Your task to perform on an android device: Clear all items from cart on target. Search for "razer blade" on target, select the first entry, add it to the cart, then select checkout. Image 0: 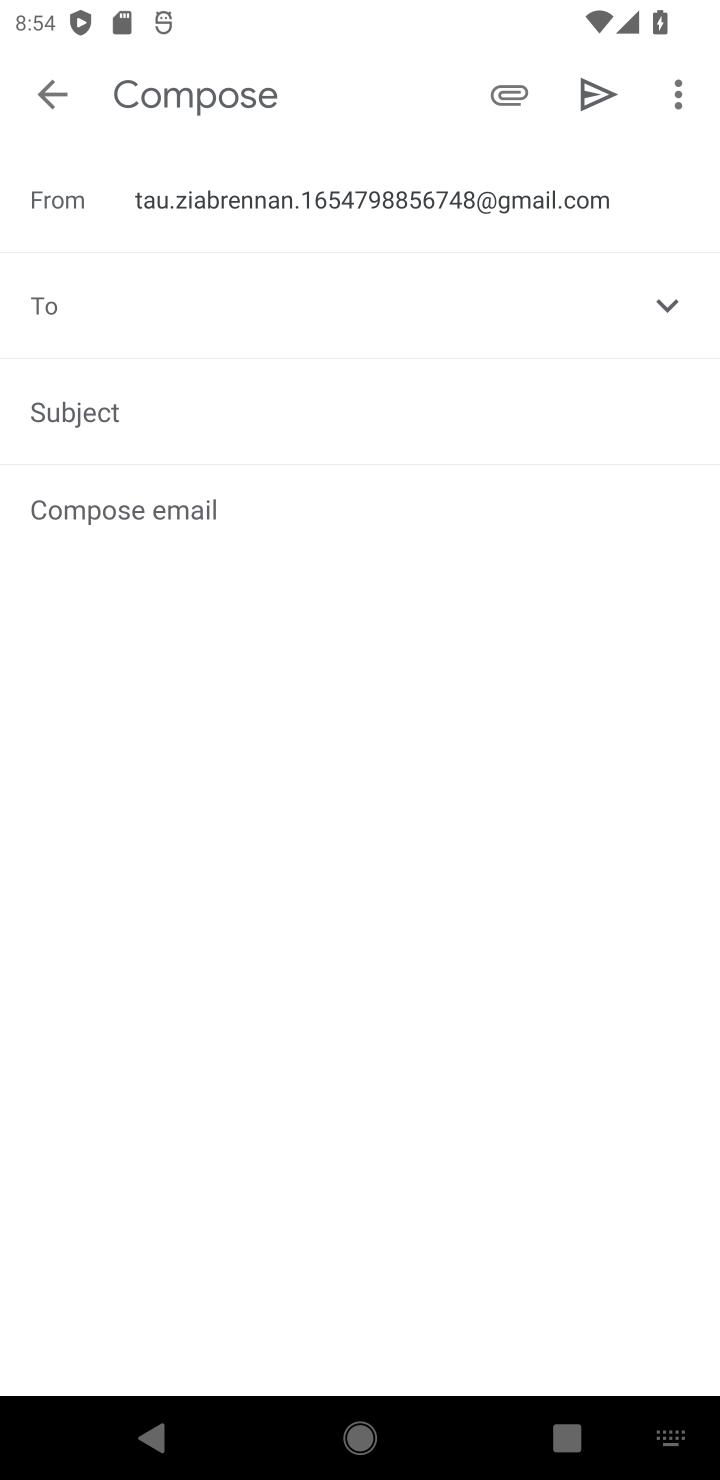
Step 0: press home button
Your task to perform on an android device: Clear all items from cart on target. Search for "razer blade" on target, select the first entry, add it to the cart, then select checkout. Image 1: 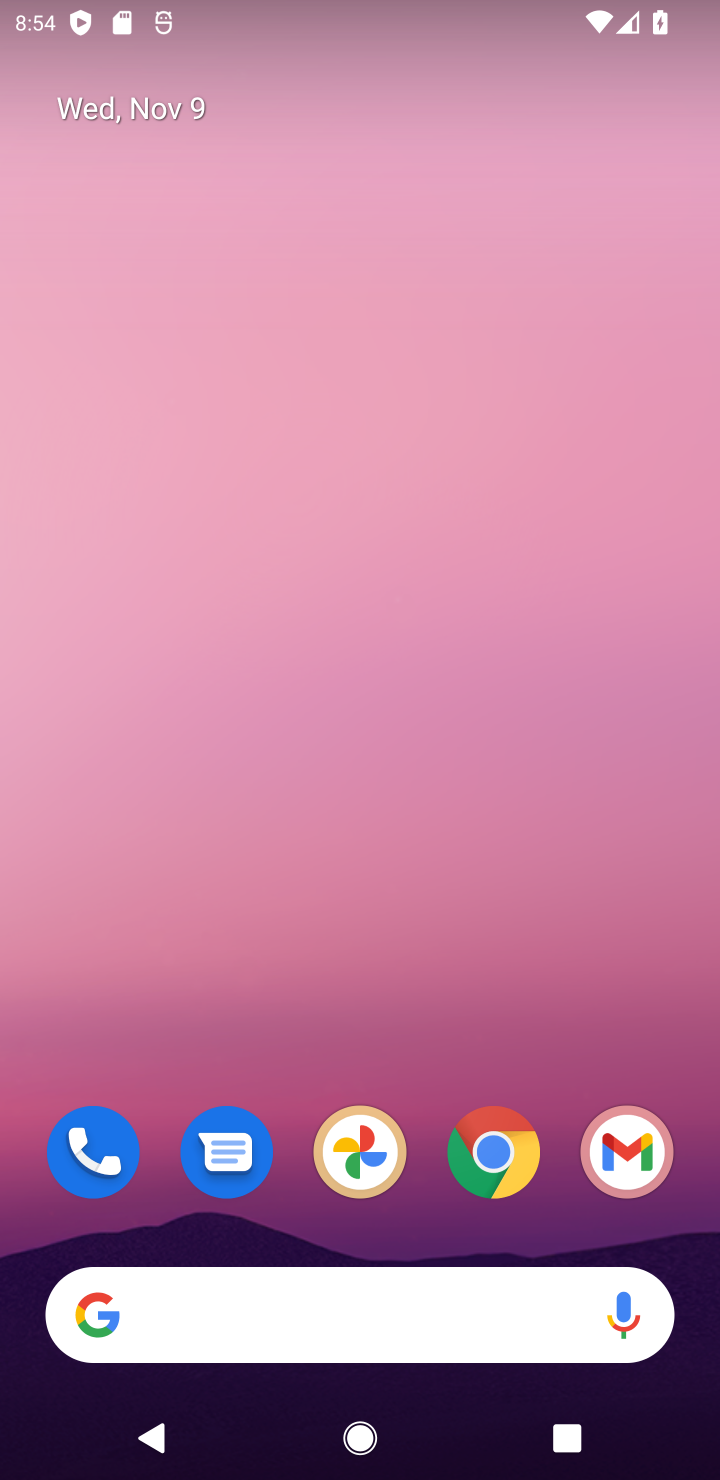
Step 1: click (496, 1161)
Your task to perform on an android device: Clear all items from cart on target. Search for "razer blade" on target, select the first entry, add it to the cart, then select checkout. Image 2: 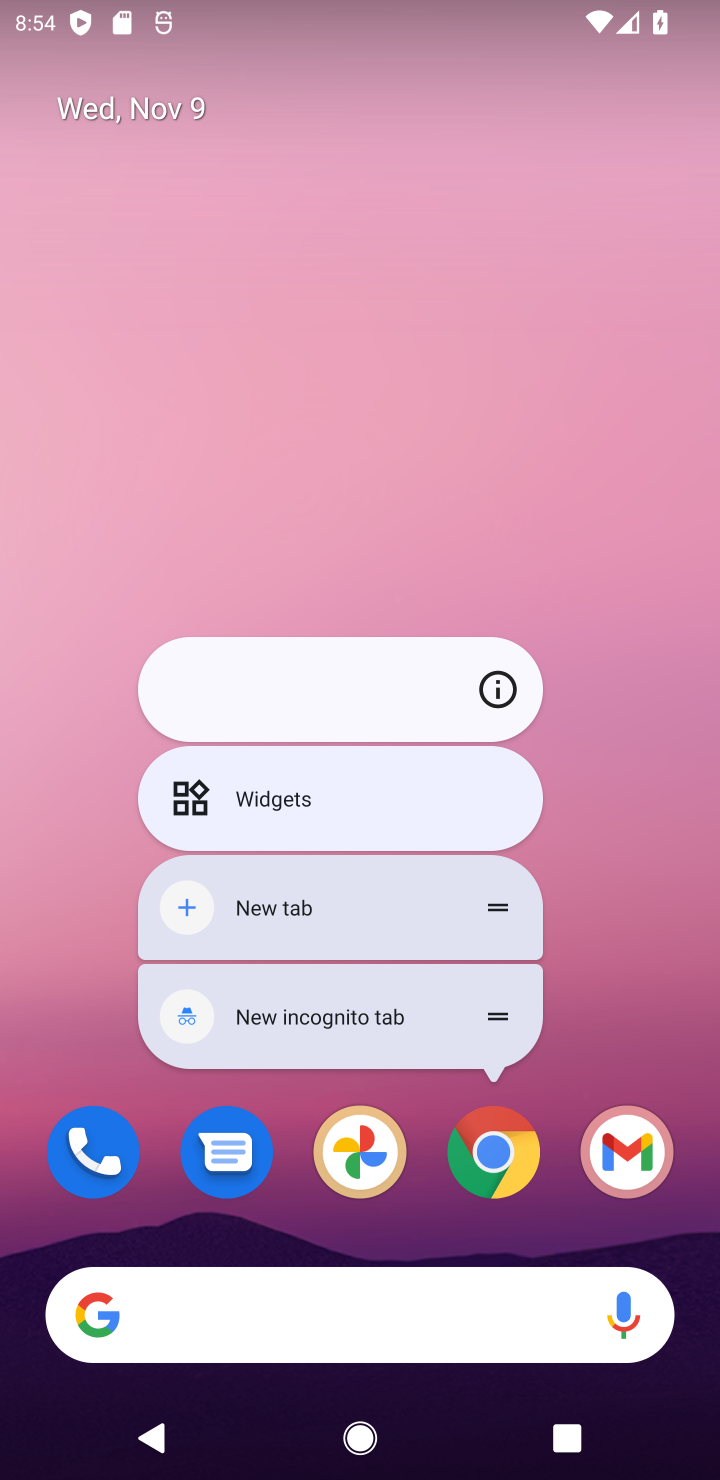
Step 2: click (496, 1164)
Your task to perform on an android device: Clear all items from cart on target. Search for "razer blade" on target, select the first entry, add it to the cart, then select checkout. Image 3: 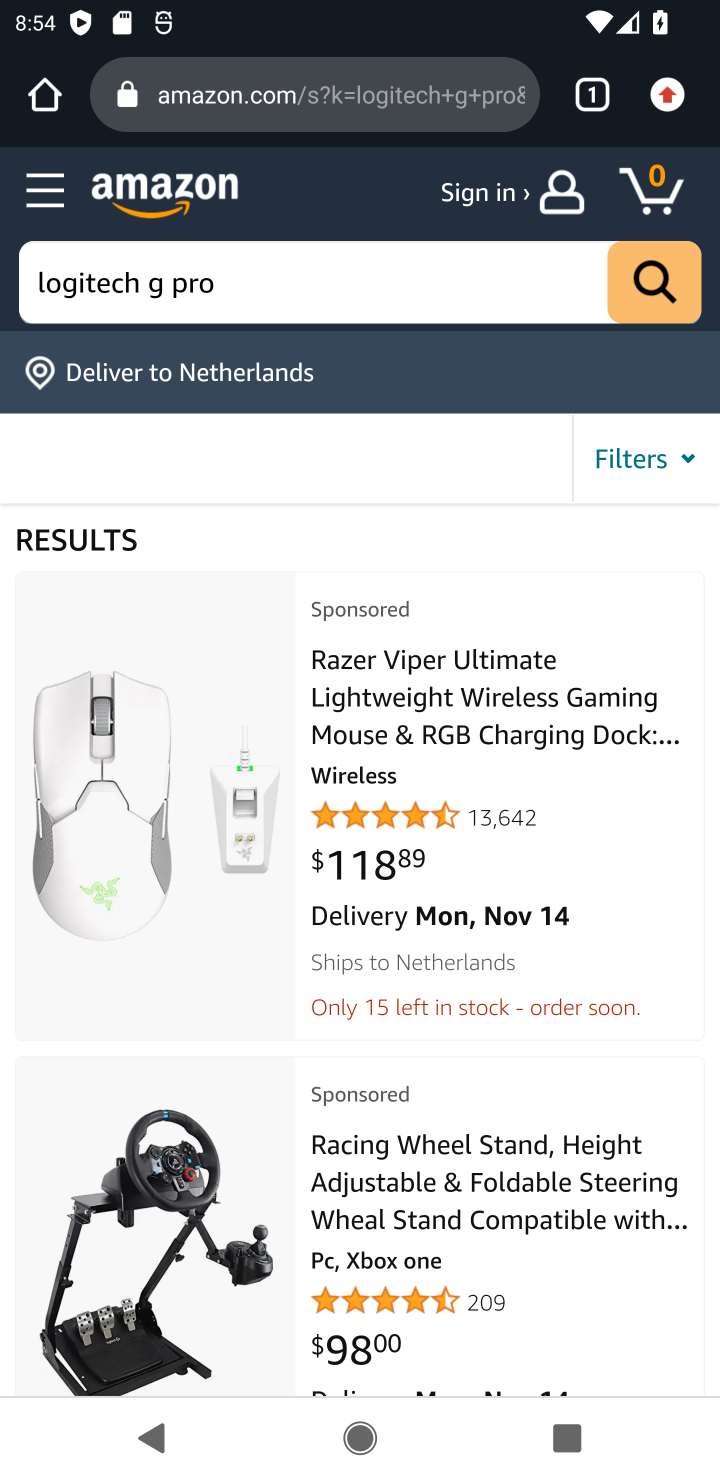
Step 3: click (309, 84)
Your task to perform on an android device: Clear all items from cart on target. Search for "razer blade" on target, select the first entry, add it to the cart, then select checkout. Image 4: 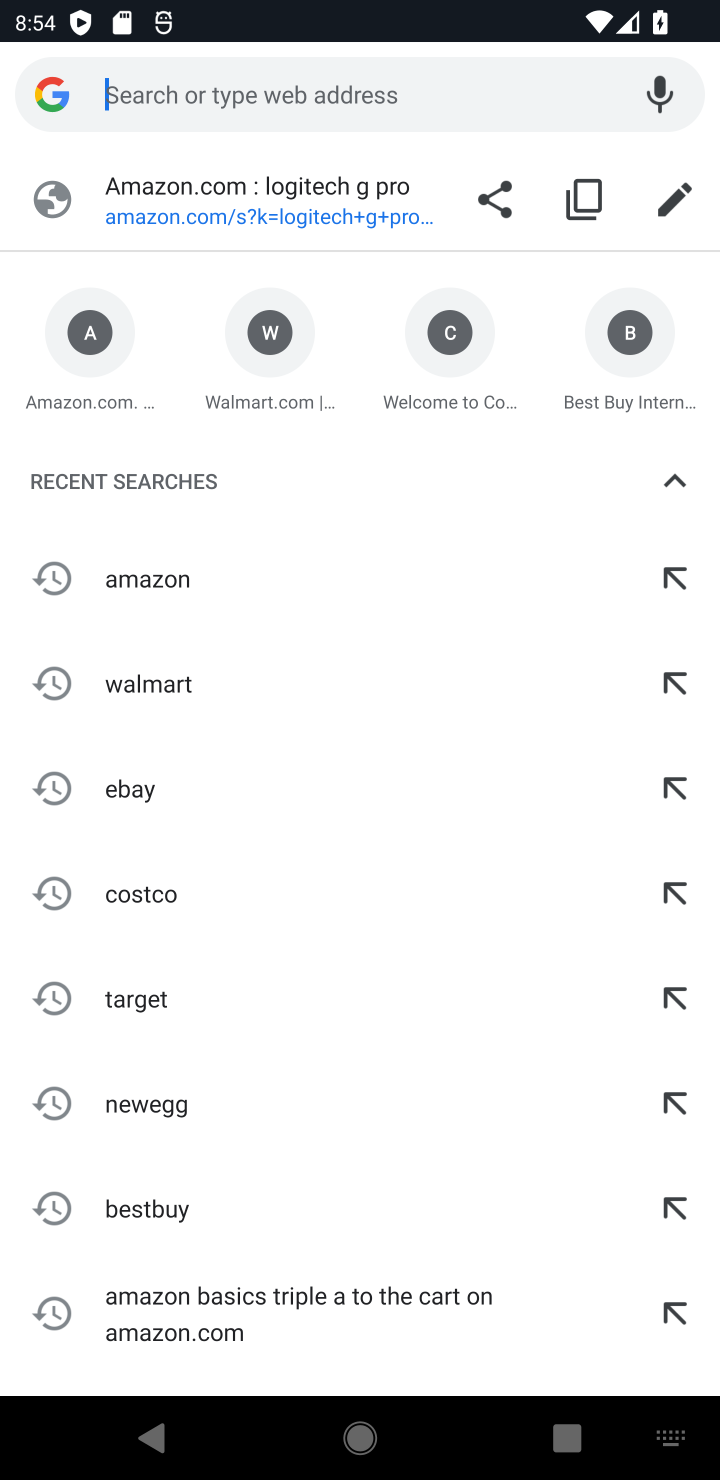
Step 4: click (105, 979)
Your task to perform on an android device: Clear all items from cart on target. Search for "razer blade" on target, select the first entry, add it to the cart, then select checkout. Image 5: 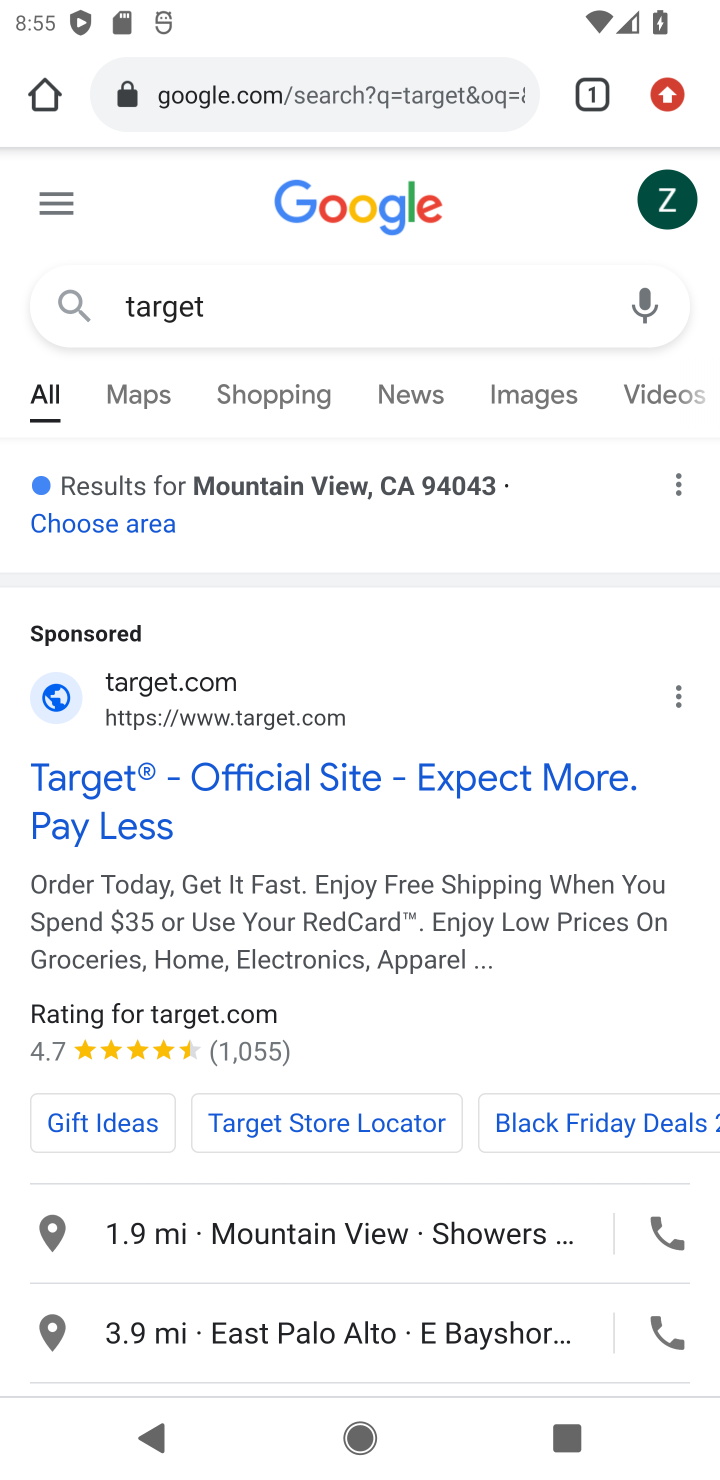
Step 5: click (88, 780)
Your task to perform on an android device: Clear all items from cart on target. Search for "razer blade" on target, select the first entry, add it to the cart, then select checkout. Image 6: 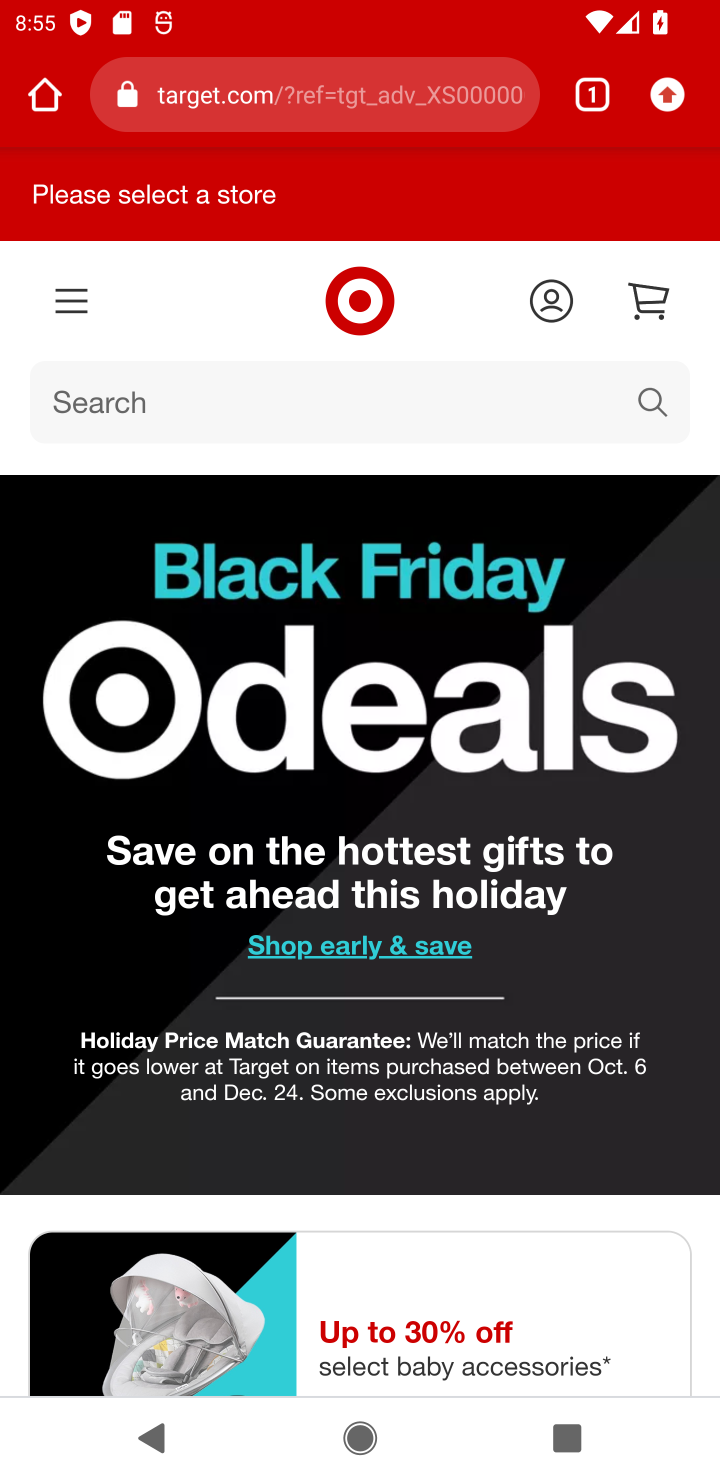
Step 6: click (106, 383)
Your task to perform on an android device: Clear all items from cart on target. Search for "razer blade" on target, select the first entry, add it to the cart, then select checkout. Image 7: 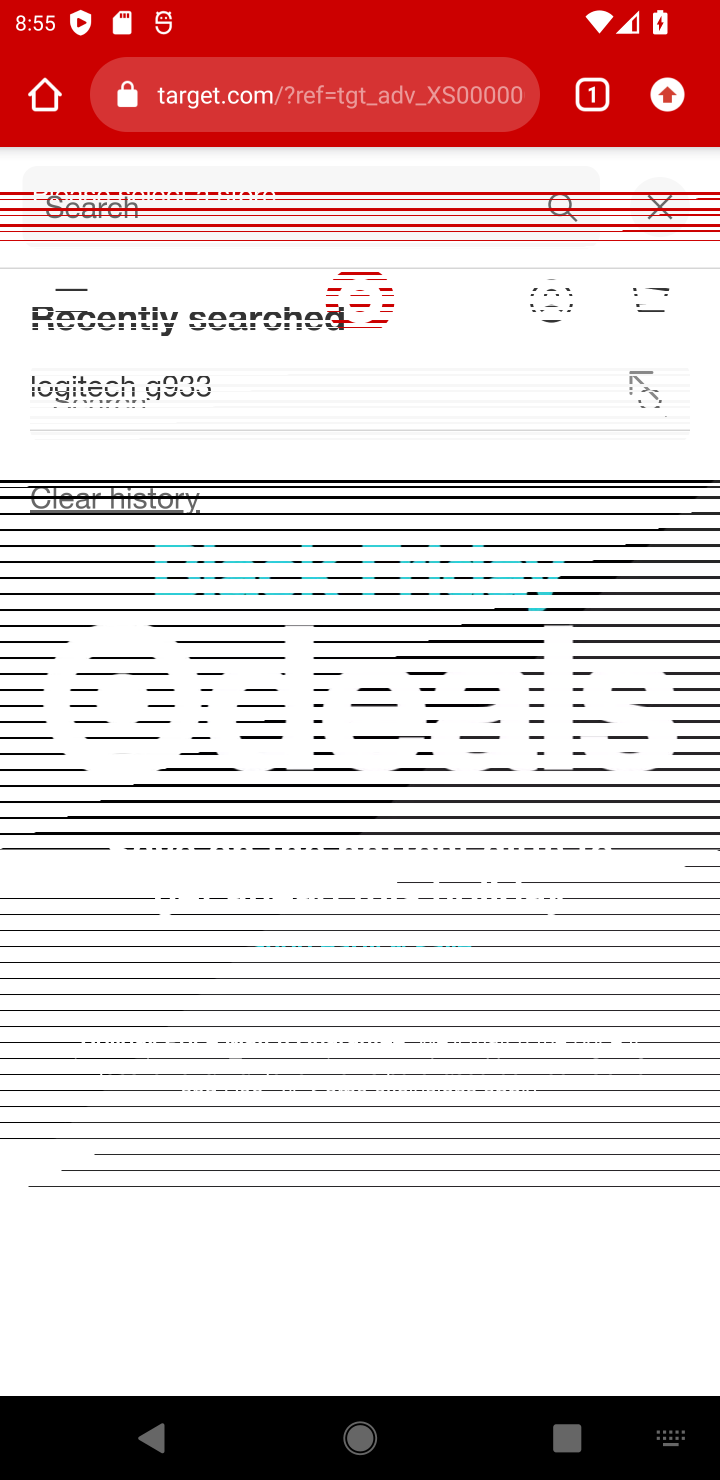
Step 7: type "razer blade"
Your task to perform on an android device: Clear all items from cart on target. Search for "razer blade" on target, select the first entry, add it to the cart, then select checkout. Image 8: 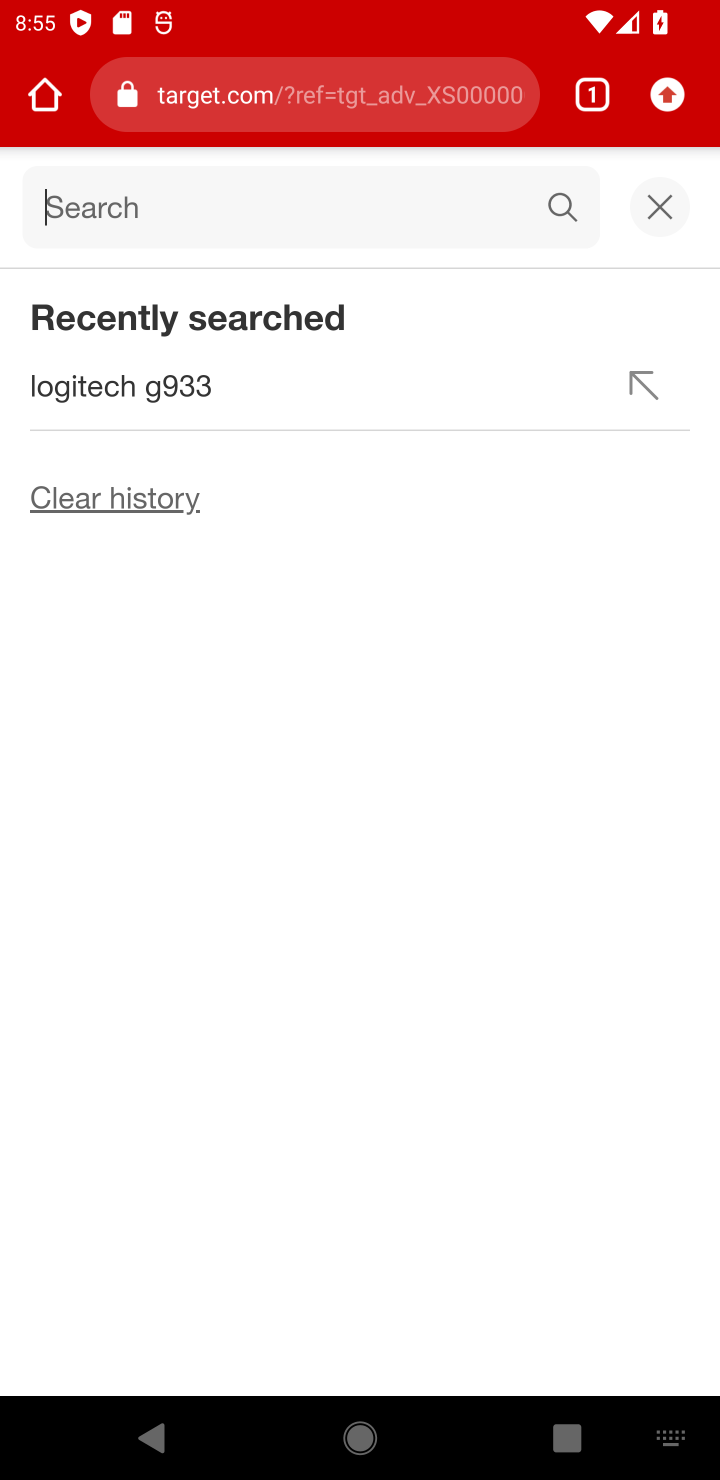
Step 8: press enter
Your task to perform on an android device: Clear all items from cart on target. Search for "razer blade" on target, select the first entry, add it to the cart, then select checkout. Image 9: 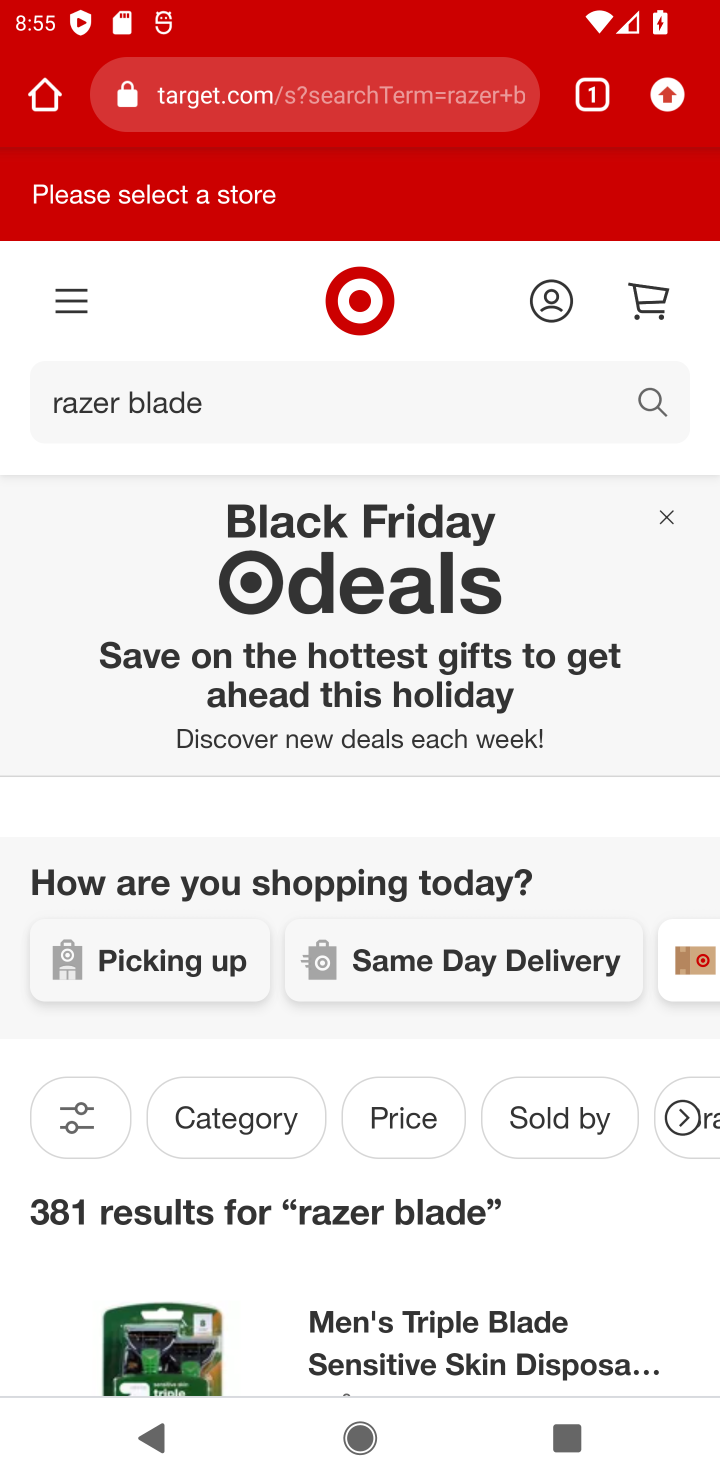
Step 9: task complete